Your task to perform on an android device: What's the weather today? Image 0: 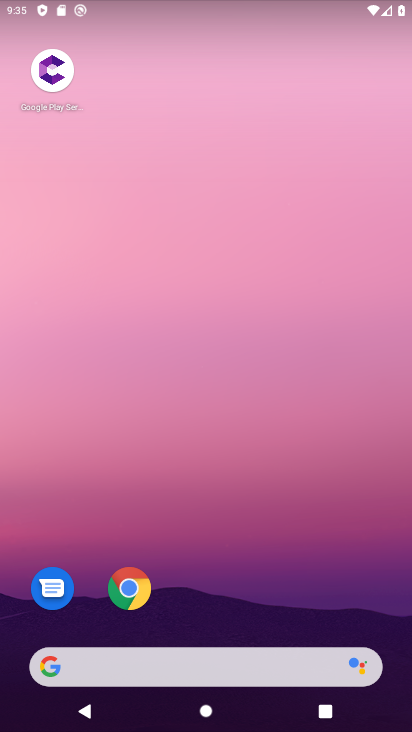
Step 0: drag from (238, 534) to (238, 63)
Your task to perform on an android device: What's the weather today? Image 1: 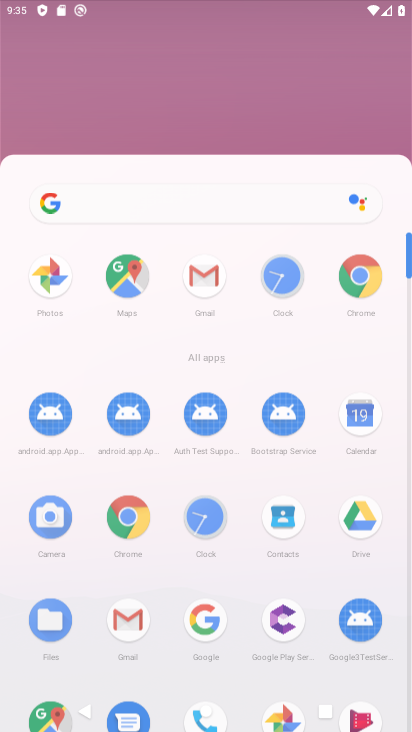
Step 1: drag from (277, 539) to (275, 121)
Your task to perform on an android device: What's the weather today? Image 2: 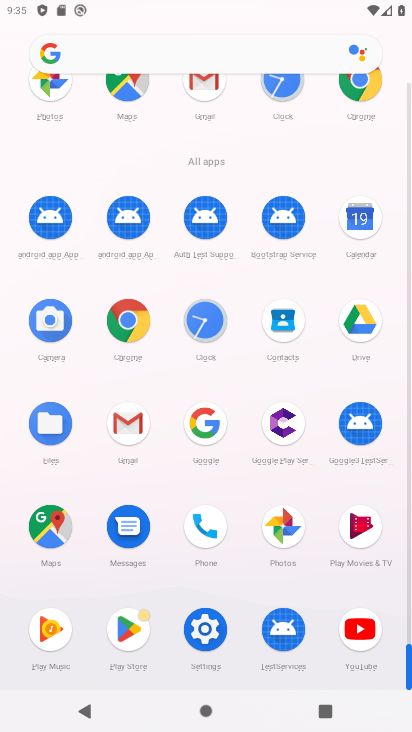
Step 2: click (113, 332)
Your task to perform on an android device: What's the weather today? Image 3: 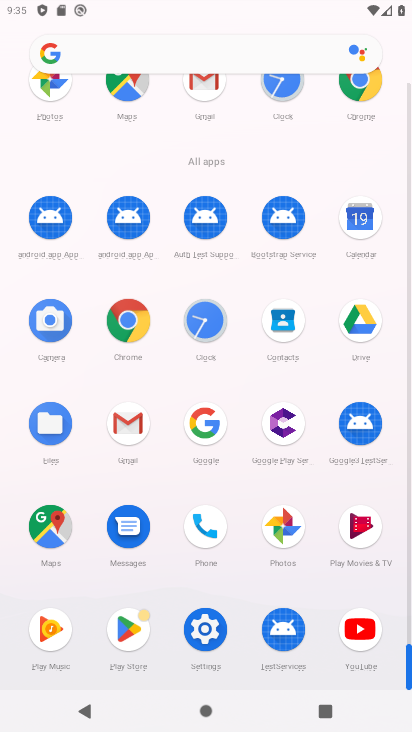
Step 3: click (112, 333)
Your task to perform on an android device: What's the weather today? Image 4: 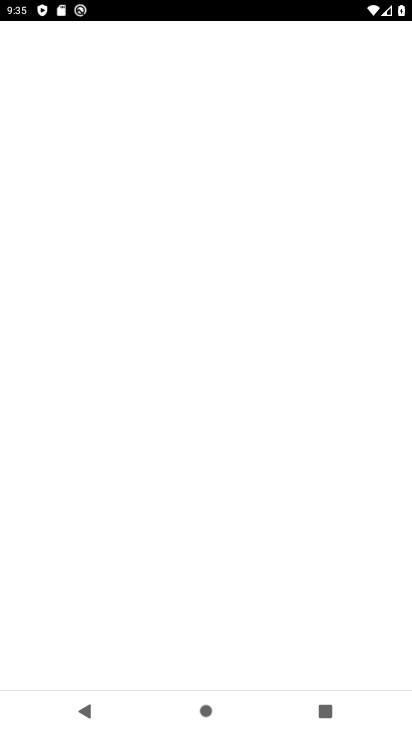
Step 4: click (121, 324)
Your task to perform on an android device: What's the weather today? Image 5: 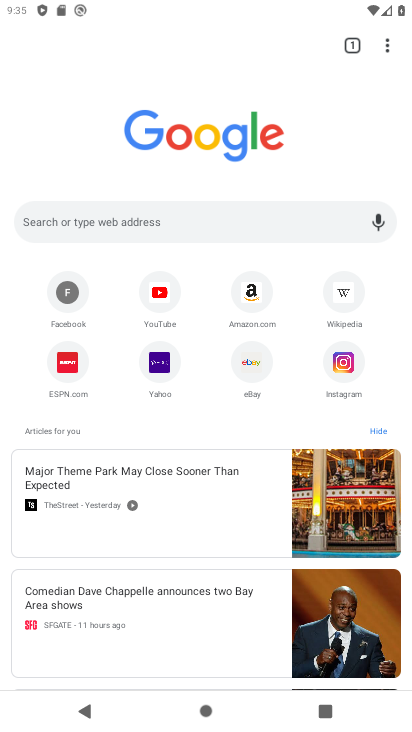
Step 5: click (64, 214)
Your task to perform on an android device: What's the weather today? Image 6: 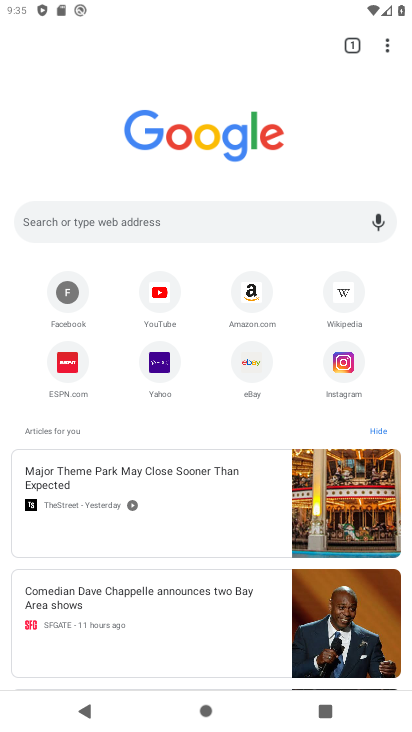
Step 6: click (73, 219)
Your task to perform on an android device: What's the weather today? Image 7: 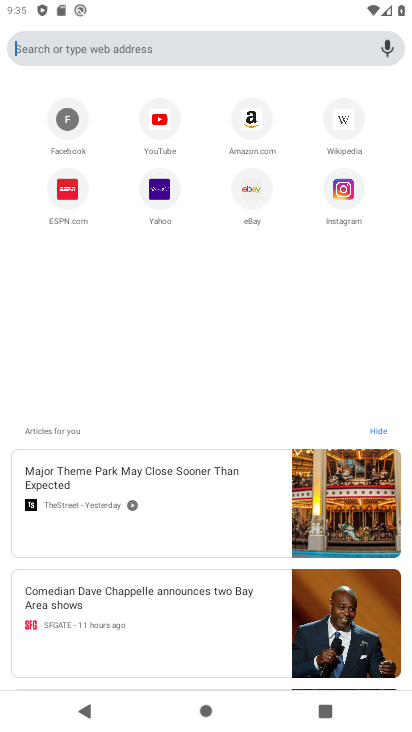
Step 7: click (88, 218)
Your task to perform on an android device: What's the weather today? Image 8: 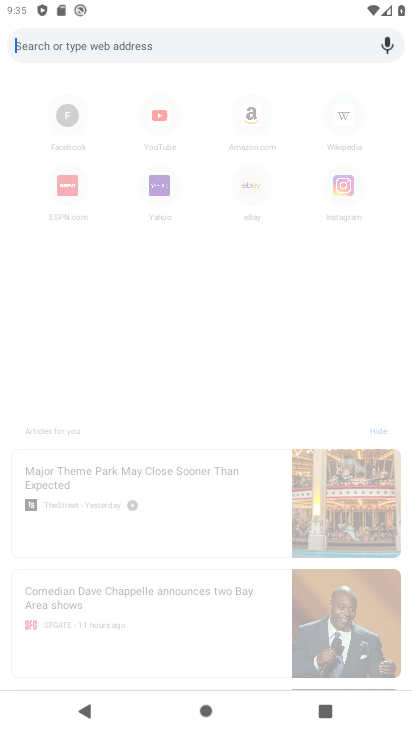
Step 8: click (88, 218)
Your task to perform on an android device: What's the weather today? Image 9: 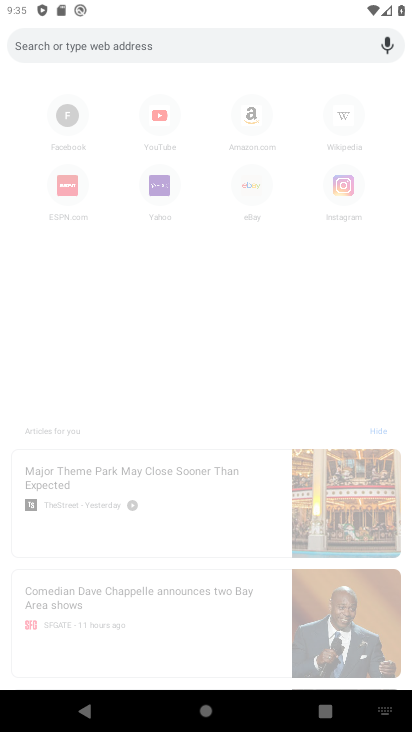
Step 9: type "today weather?"
Your task to perform on an android device: What's the weather today? Image 10: 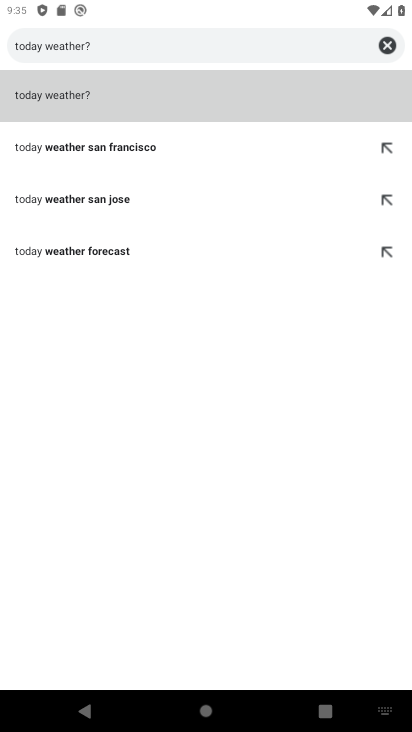
Step 10: click (39, 103)
Your task to perform on an android device: What's the weather today? Image 11: 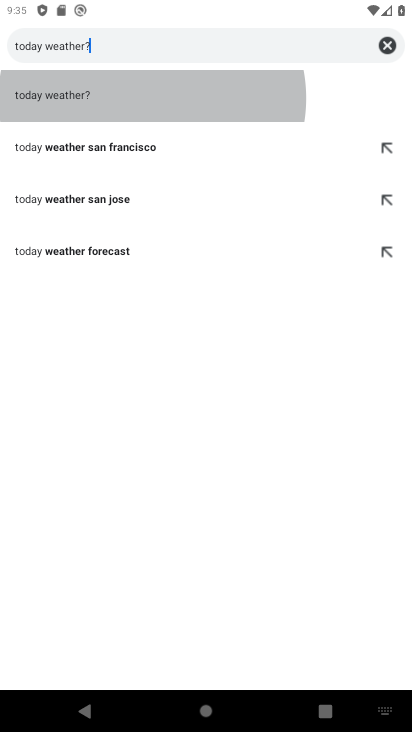
Step 11: click (61, 90)
Your task to perform on an android device: What's the weather today? Image 12: 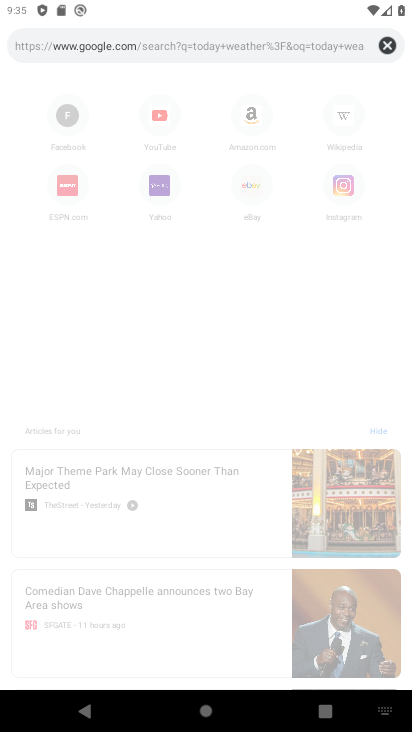
Step 12: click (61, 90)
Your task to perform on an android device: What's the weather today? Image 13: 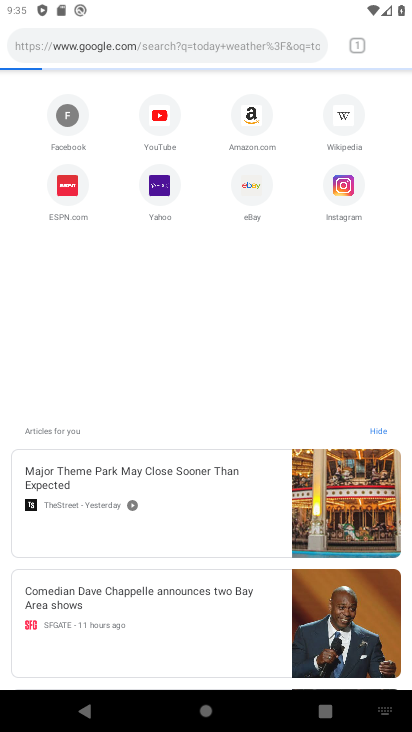
Step 13: click (61, 90)
Your task to perform on an android device: What's the weather today? Image 14: 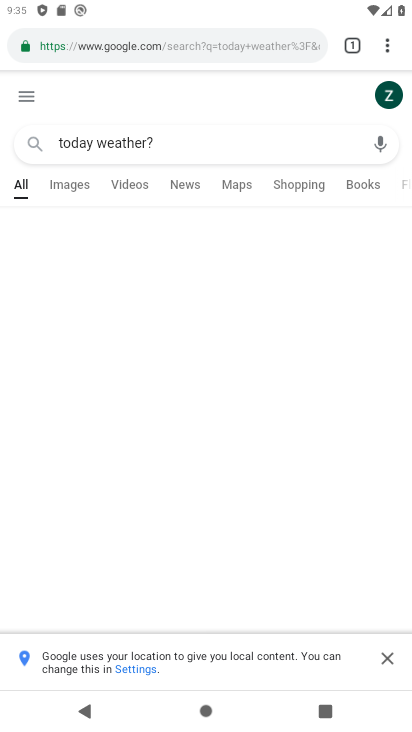
Step 14: task complete